Your task to perform on an android device: Do I have any events tomorrow? Image 0: 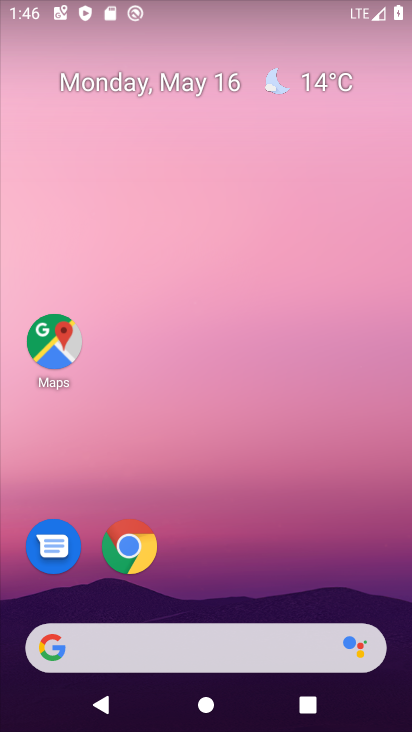
Step 0: drag from (280, 674) to (219, 301)
Your task to perform on an android device: Do I have any events tomorrow? Image 1: 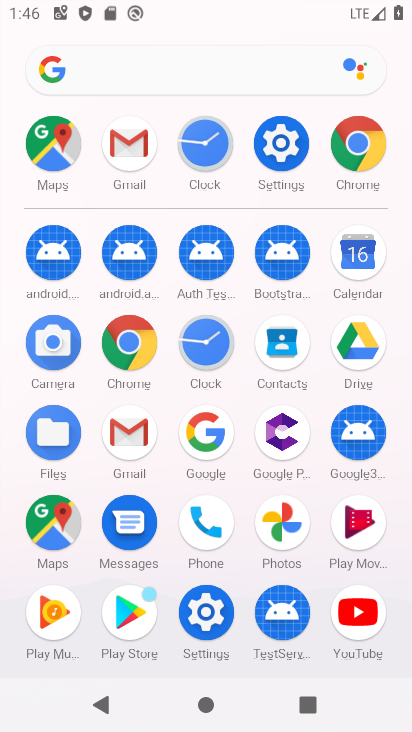
Step 1: click (345, 260)
Your task to perform on an android device: Do I have any events tomorrow? Image 2: 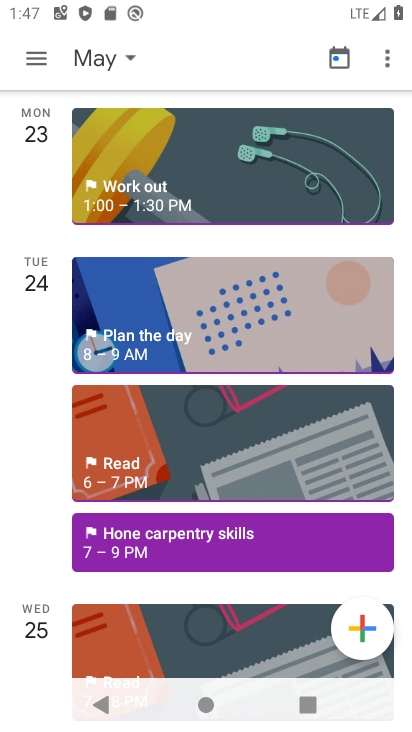
Step 2: click (28, 65)
Your task to perform on an android device: Do I have any events tomorrow? Image 3: 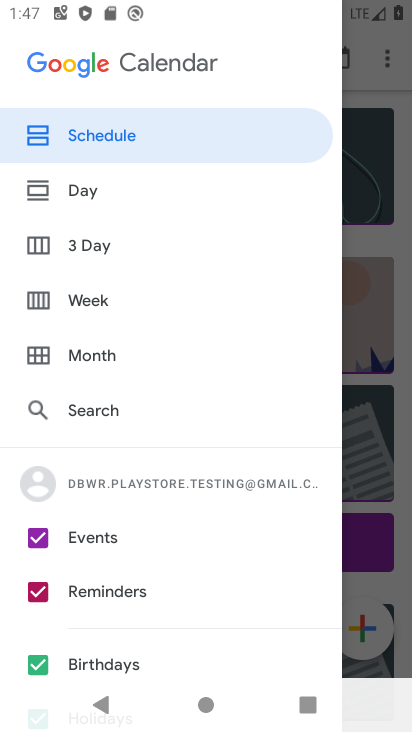
Step 3: click (100, 357)
Your task to perform on an android device: Do I have any events tomorrow? Image 4: 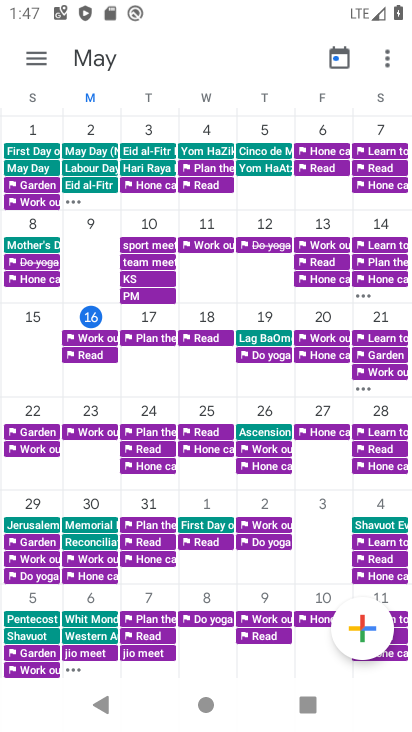
Step 4: click (139, 332)
Your task to perform on an android device: Do I have any events tomorrow? Image 5: 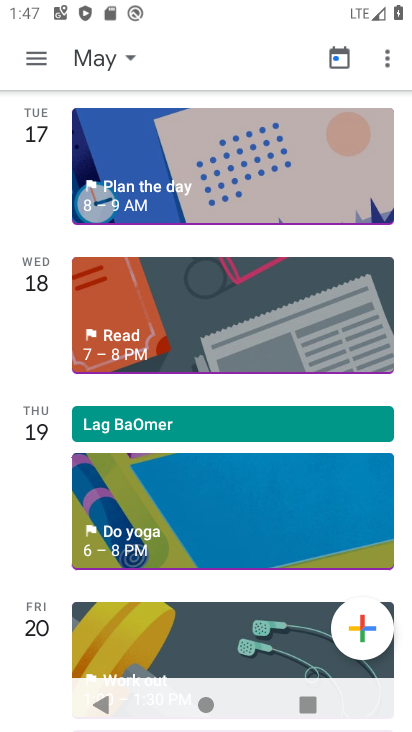
Step 5: task complete